Your task to perform on an android device: change the clock style Image 0: 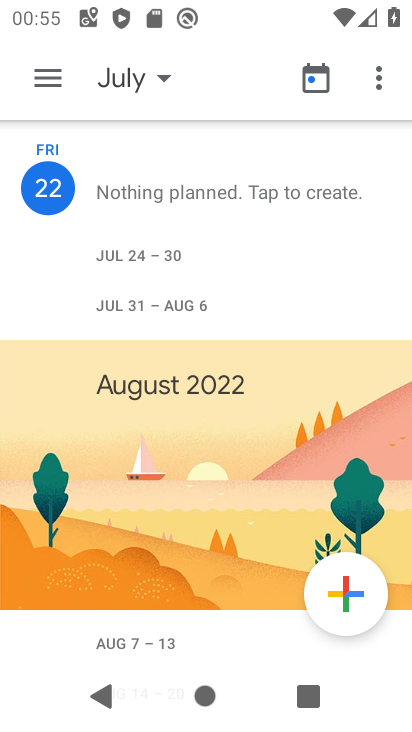
Step 0: press back button
Your task to perform on an android device: change the clock style Image 1: 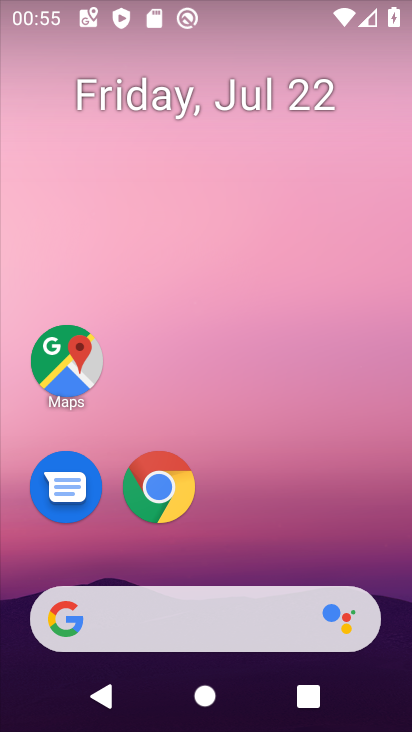
Step 1: drag from (222, 501) to (251, 1)
Your task to perform on an android device: change the clock style Image 2: 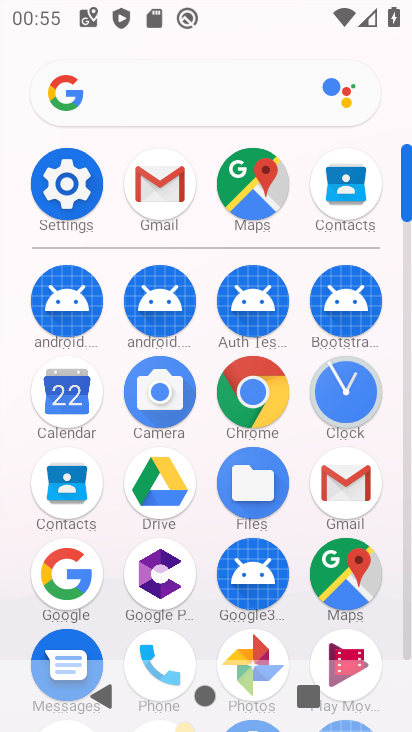
Step 2: click (356, 404)
Your task to perform on an android device: change the clock style Image 3: 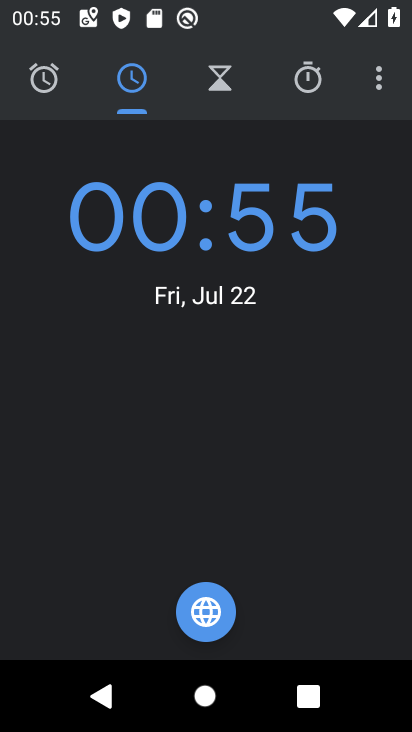
Step 3: click (369, 77)
Your task to perform on an android device: change the clock style Image 4: 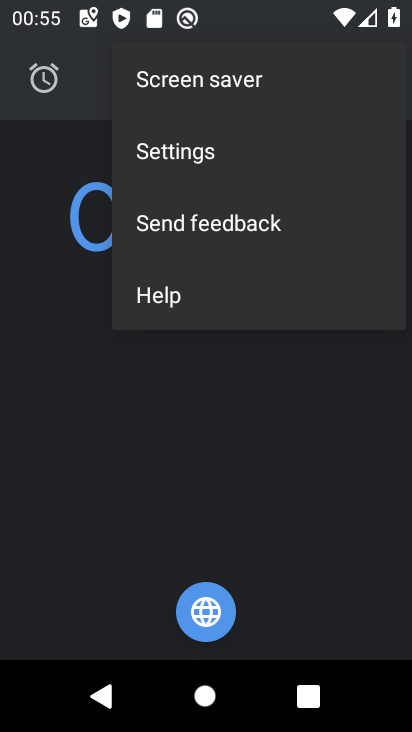
Step 4: click (201, 155)
Your task to perform on an android device: change the clock style Image 5: 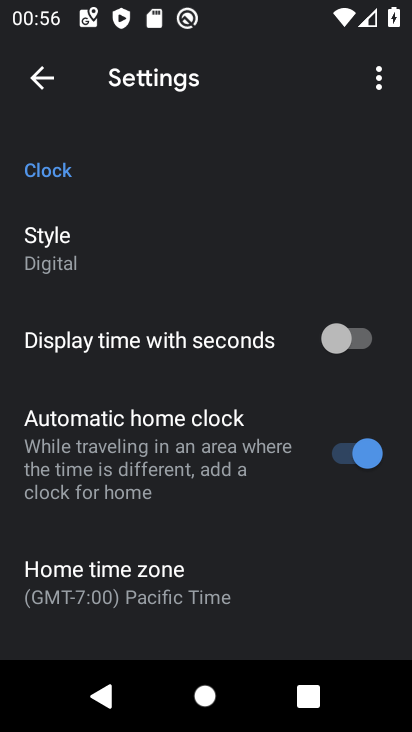
Step 5: click (96, 238)
Your task to perform on an android device: change the clock style Image 6: 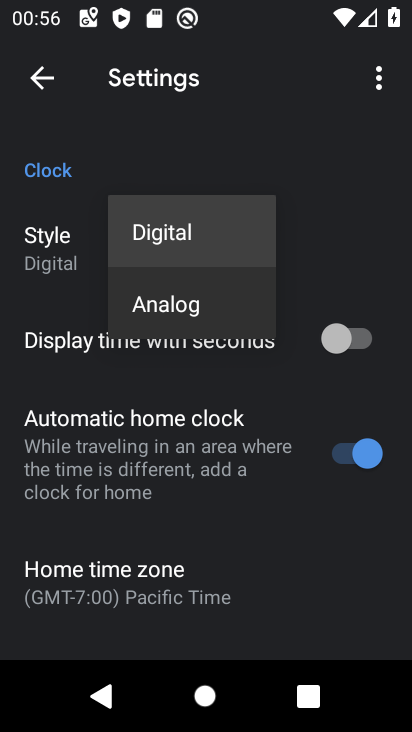
Step 6: click (151, 299)
Your task to perform on an android device: change the clock style Image 7: 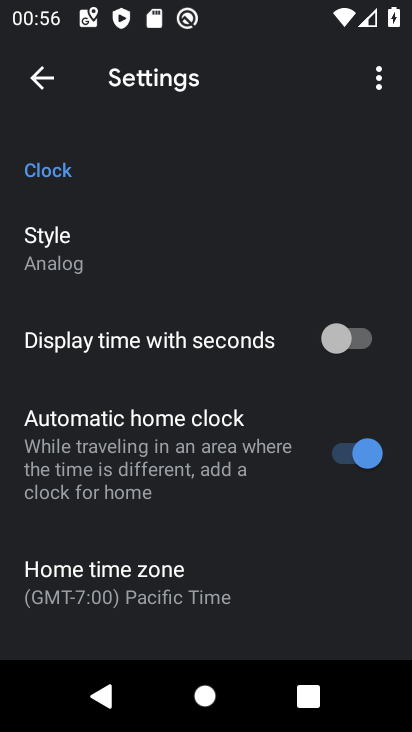
Step 7: task complete